Your task to perform on an android device: make emails show in primary in the gmail app Image 0: 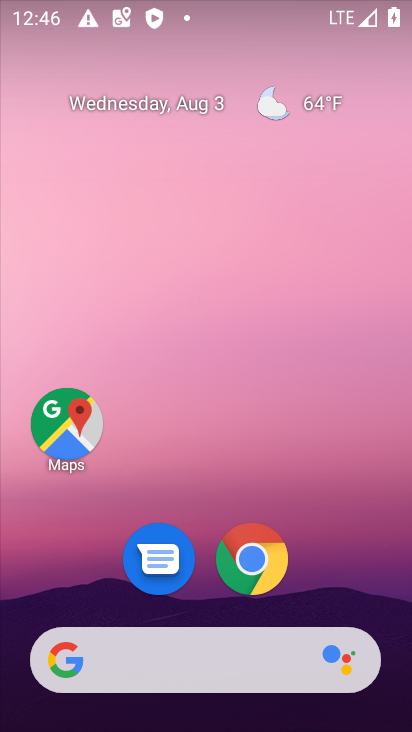
Step 0: drag from (200, 603) to (206, 81)
Your task to perform on an android device: make emails show in primary in the gmail app Image 1: 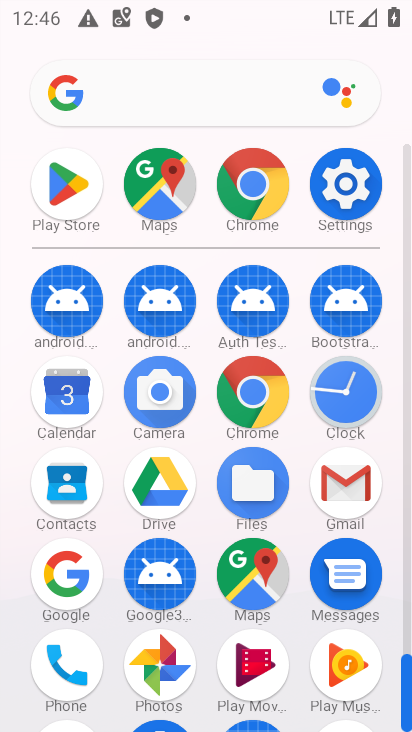
Step 1: click (342, 478)
Your task to perform on an android device: make emails show in primary in the gmail app Image 2: 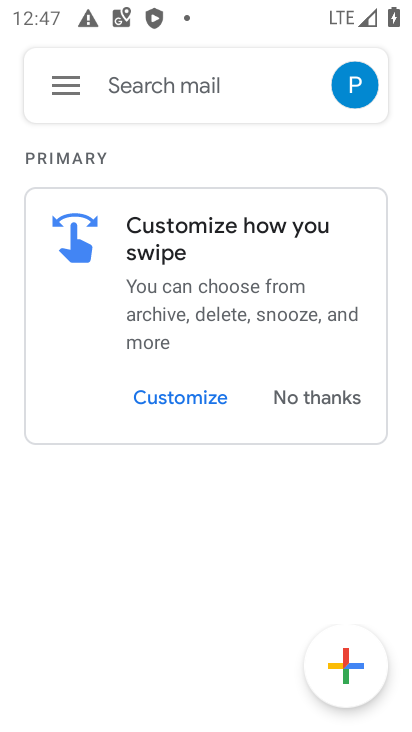
Step 2: task complete